Your task to perform on an android device: turn off improve location accuracy Image 0: 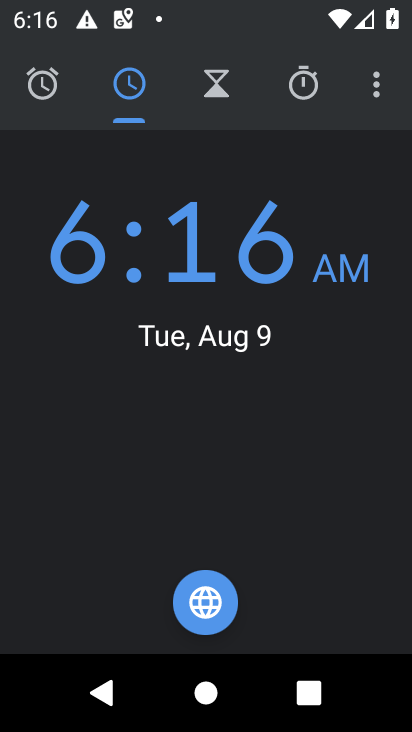
Step 0: press home button
Your task to perform on an android device: turn off improve location accuracy Image 1: 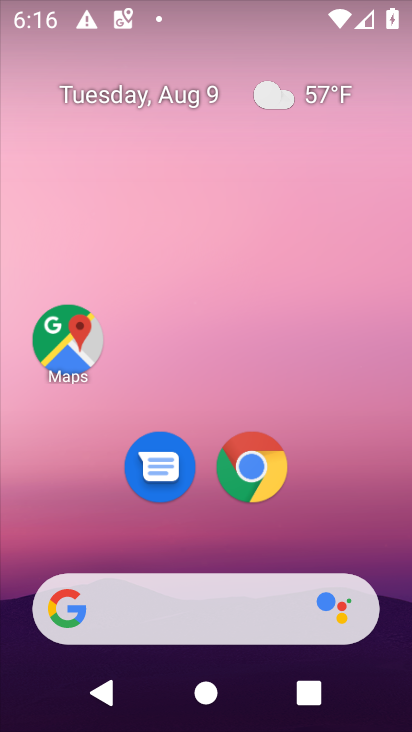
Step 1: drag from (206, 546) to (219, 78)
Your task to perform on an android device: turn off improve location accuracy Image 2: 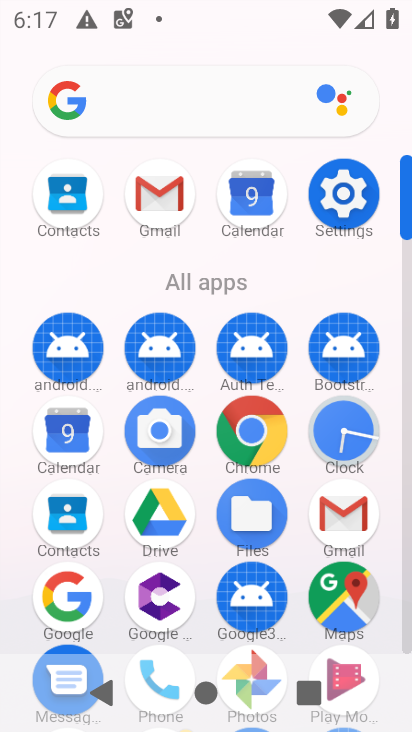
Step 2: click (343, 192)
Your task to perform on an android device: turn off improve location accuracy Image 3: 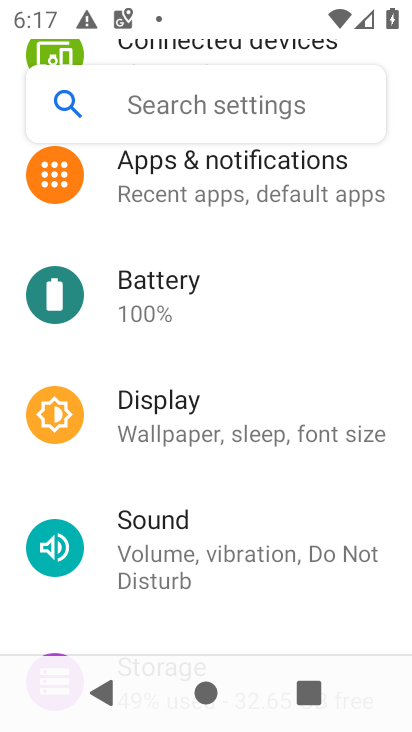
Step 3: drag from (223, 555) to (210, 184)
Your task to perform on an android device: turn off improve location accuracy Image 4: 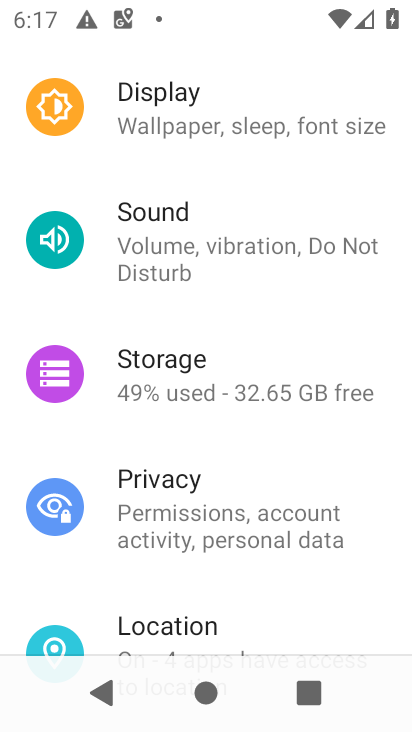
Step 4: click (163, 628)
Your task to perform on an android device: turn off improve location accuracy Image 5: 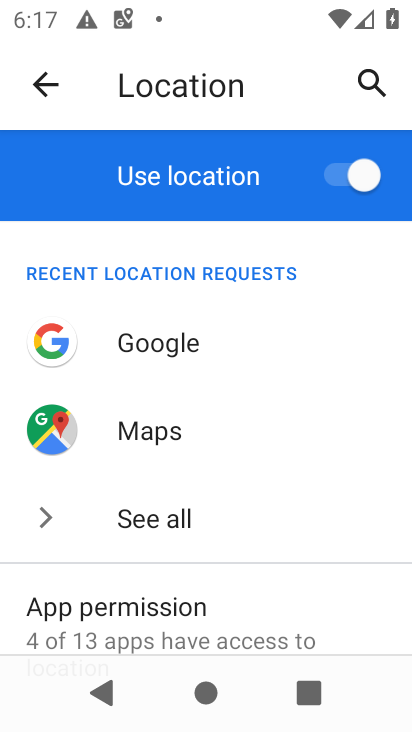
Step 5: drag from (257, 561) to (224, 263)
Your task to perform on an android device: turn off improve location accuracy Image 6: 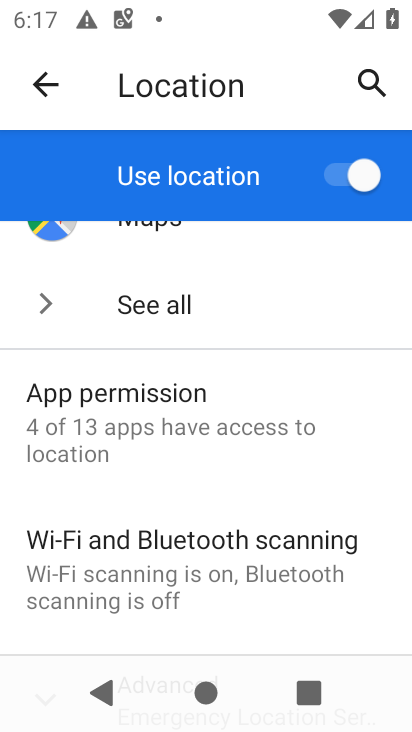
Step 6: drag from (215, 535) to (202, 298)
Your task to perform on an android device: turn off improve location accuracy Image 7: 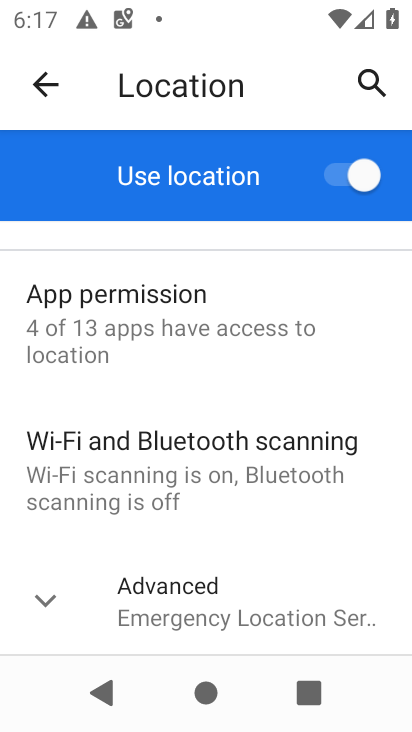
Step 7: click (163, 617)
Your task to perform on an android device: turn off improve location accuracy Image 8: 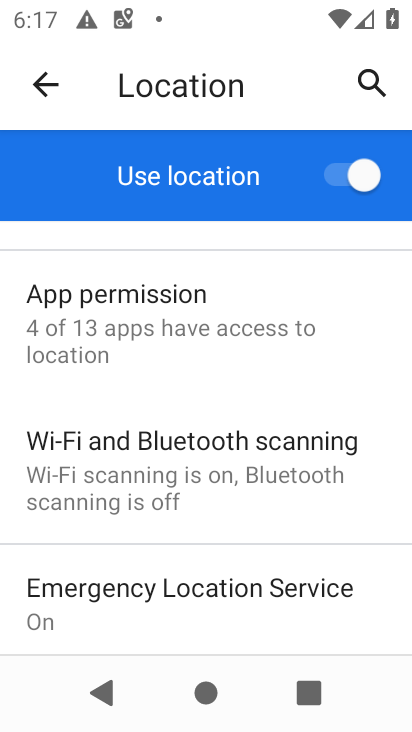
Step 8: drag from (228, 559) to (217, 409)
Your task to perform on an android device: turn off improve location accuracy Image 9: 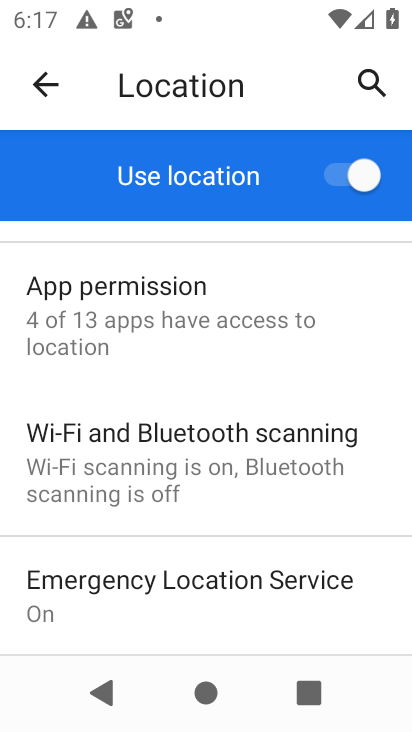
Step 9: drag from (268, 495) to (251, 290)
Your task to perform on an android device: turn off improve location accuracy Image 10: 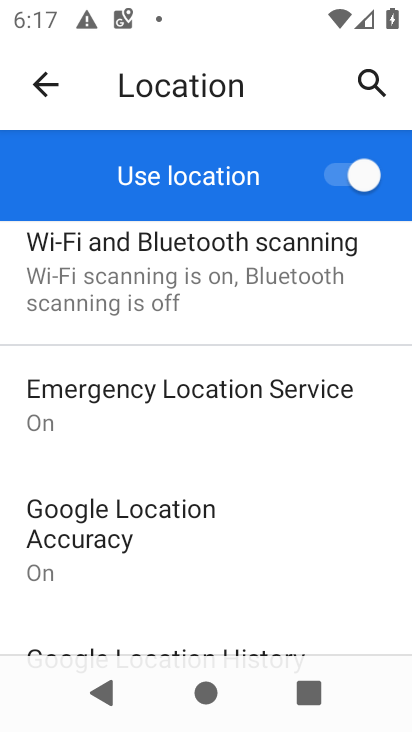
Step 10: click (111, 557)
Your task to perform on an android device: turn off improve location accuracy Image 11: 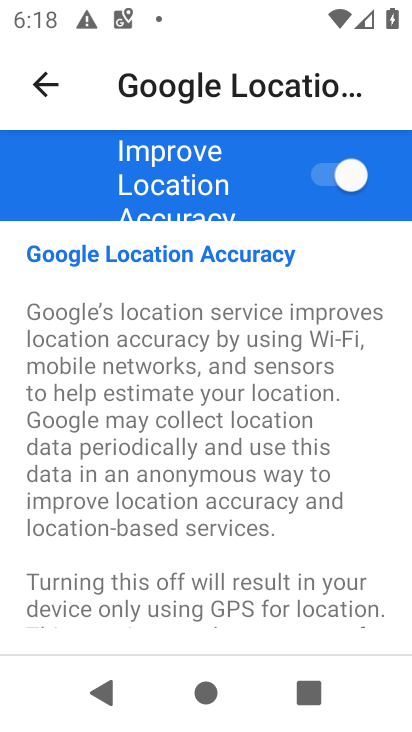
Step 11: click (331, 171)
Your task to perform on an android device: turn off improve location accuracy Image 12: 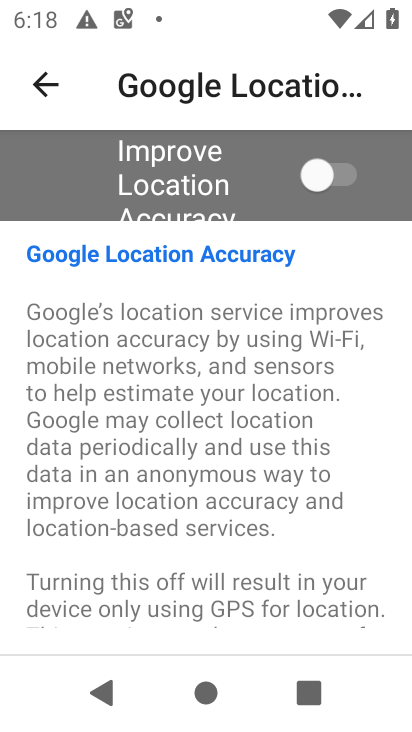
Step 12: task complete